Your task to perform on an android device: open app "Lyft - Rideshare, Bikes, Scooters & Transit" Image 0: 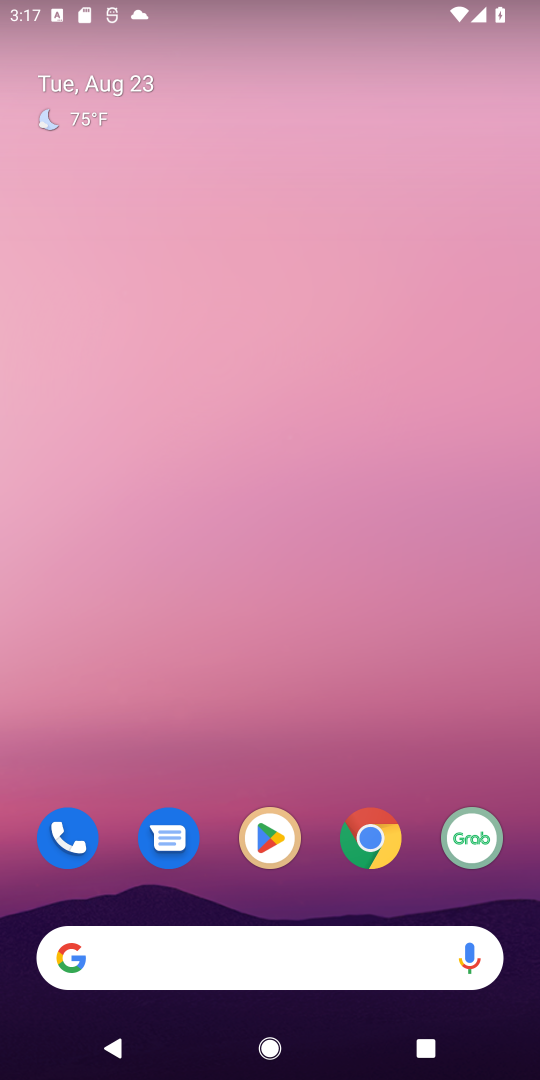
Step 0: click (263, 831)
Your task to perform on an android device: open app "Lyft - Rideshare, Bikes, Scooters & Transit" Image 1: 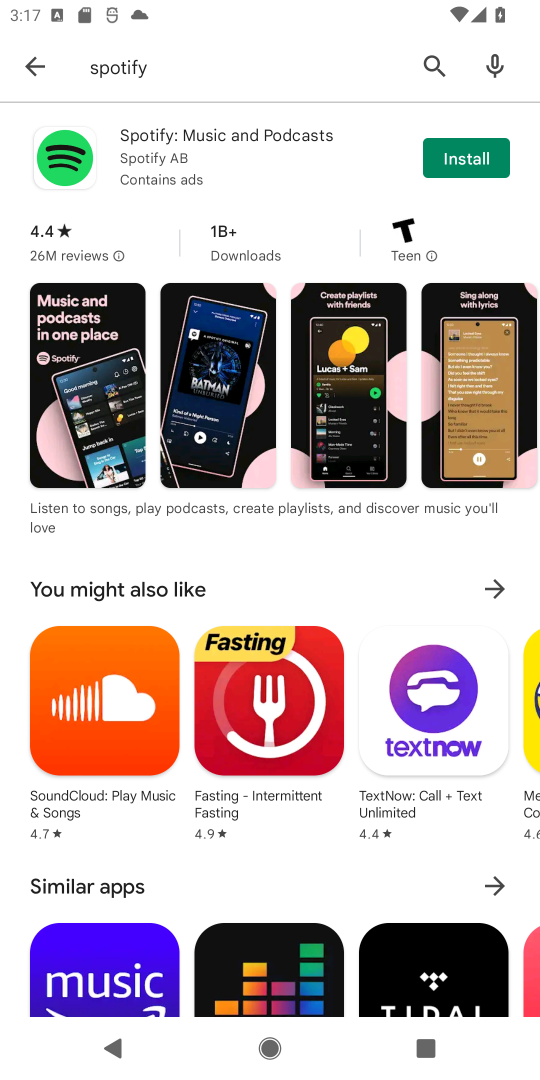
Step 1: click (64, 59)
Your task to perform on an android device: open app "Lyft - Rideshare, Bikes, Scooters & Transit" Image 2: 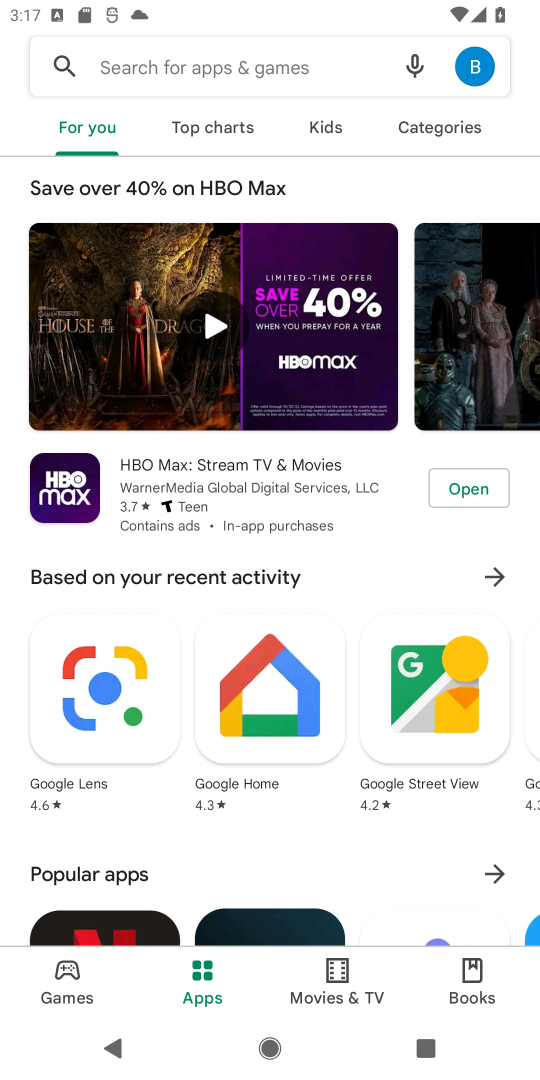
Step 2: click (123, 77)
Your task to perform on an android device: open app "Lyft - Rideshare, Bikes, Scooters & Transit" Image 3: 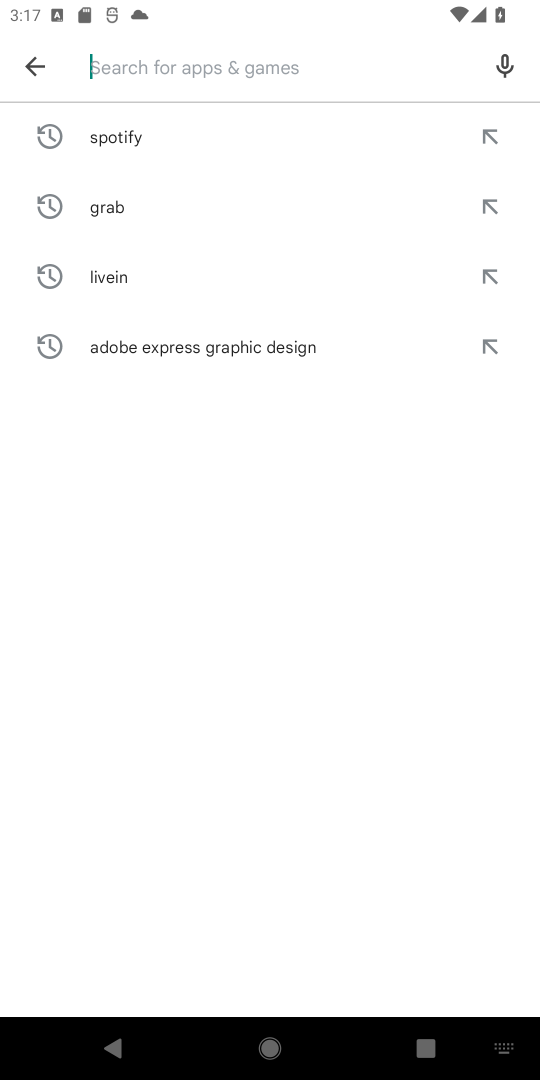
Step 3: type "Lyft"
Your task to perform on an android device: open app "Lyft - Rideshare, Bikes, Scooters & Transit" Image 4: 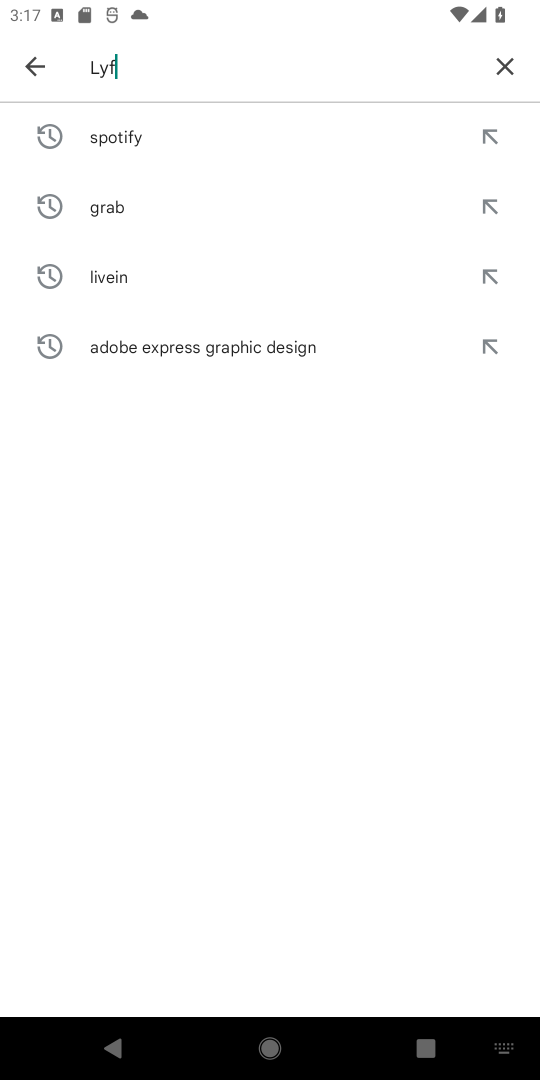
Step 4: type ""
Your task to perform on an android device: open app "Lyft - Rideshare, Bikes, Scooters & Transit" Image 5: 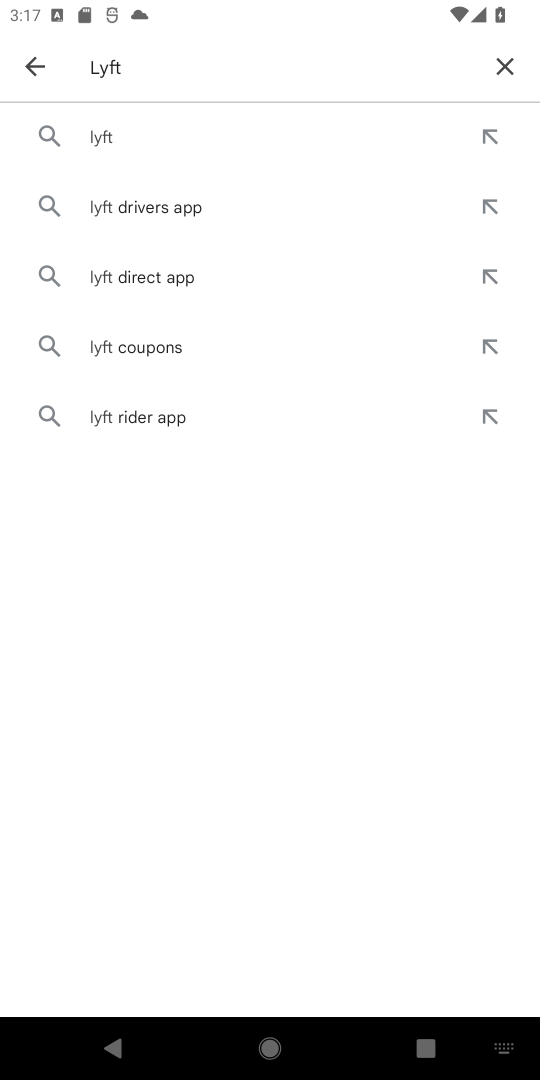
Step 5: click (76, 153)
Your task to perform on an android device: open app "Lyft - Rideshare, Bikes, Scooters & Transit" Image 6: 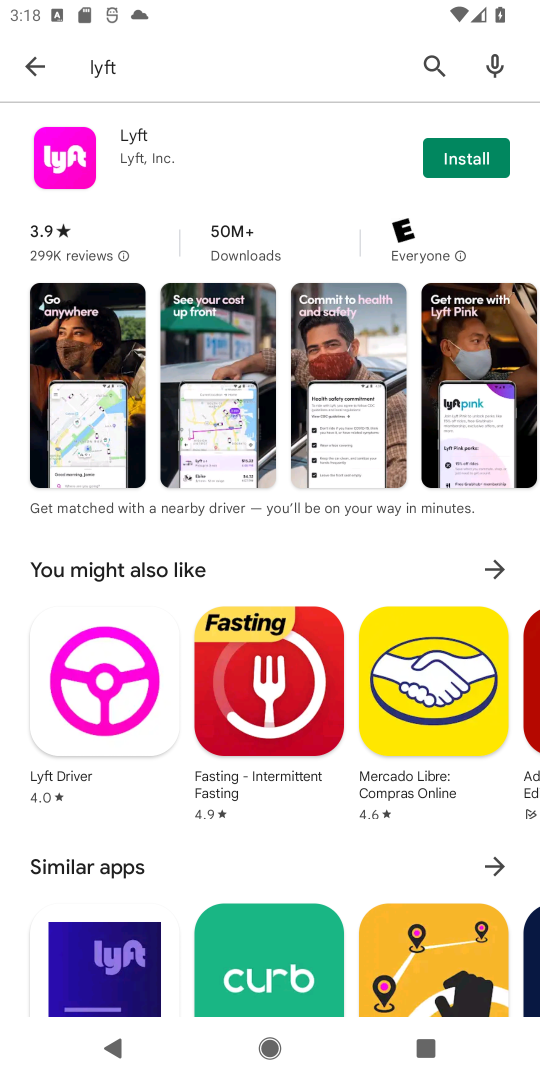
Step 6: task complete